Your task to perform on an android device: turn on translation in the chrome app Image 0: 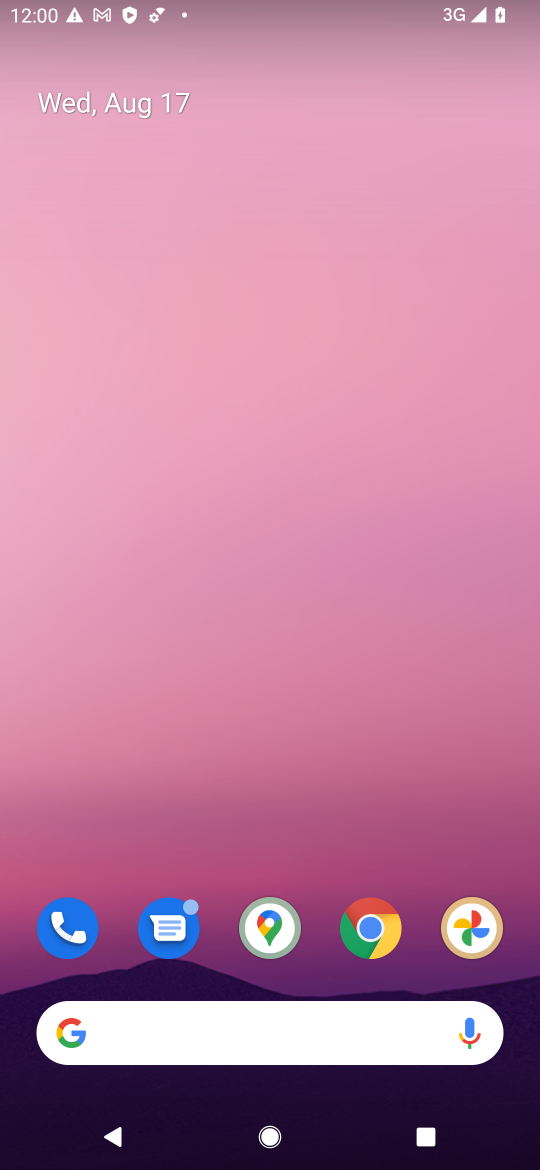
Step 0: click (348, 945)
Your task to perform on an android device: turn on translation in the chrome app Image 1: 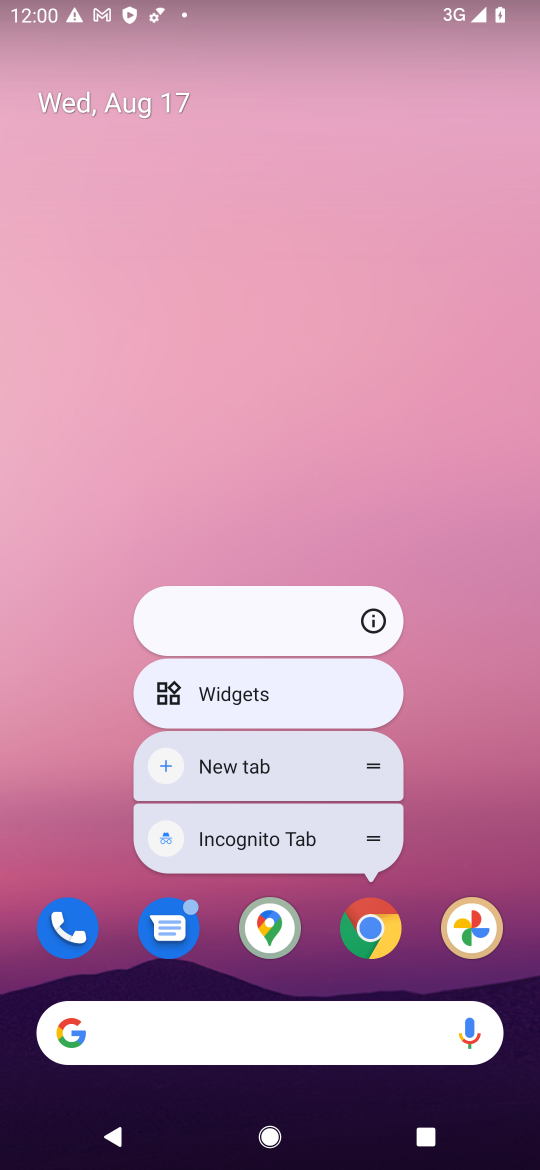
Step 1: click (348, 945)
Your task to perform on an android device: turn on translation in the chrome app Image 2: 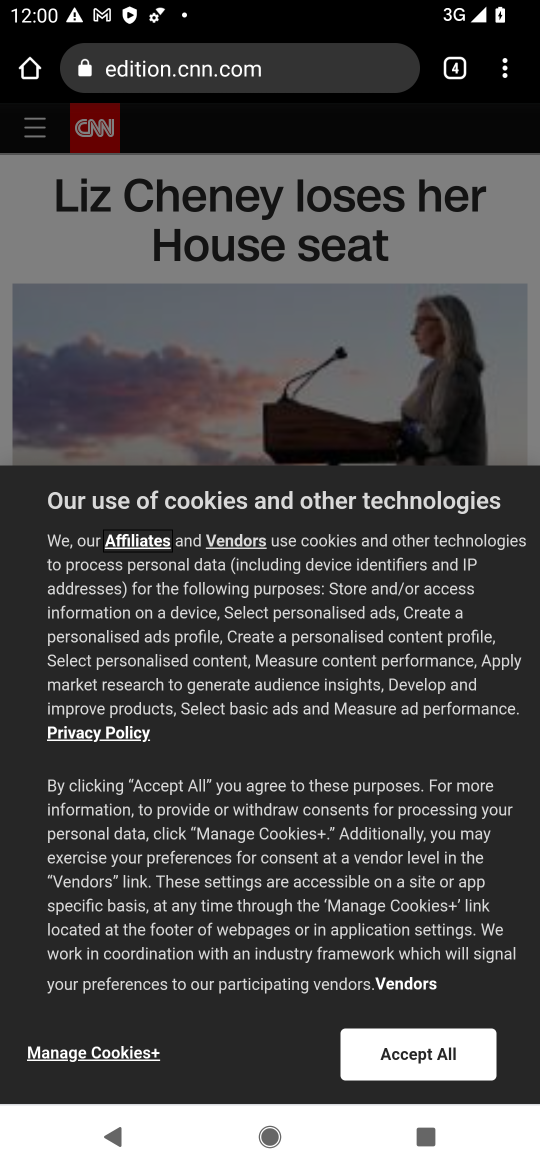
Step 2: click (499, 73)
Your task to perform on an android device: turn on translation in the chrome app Image 3: 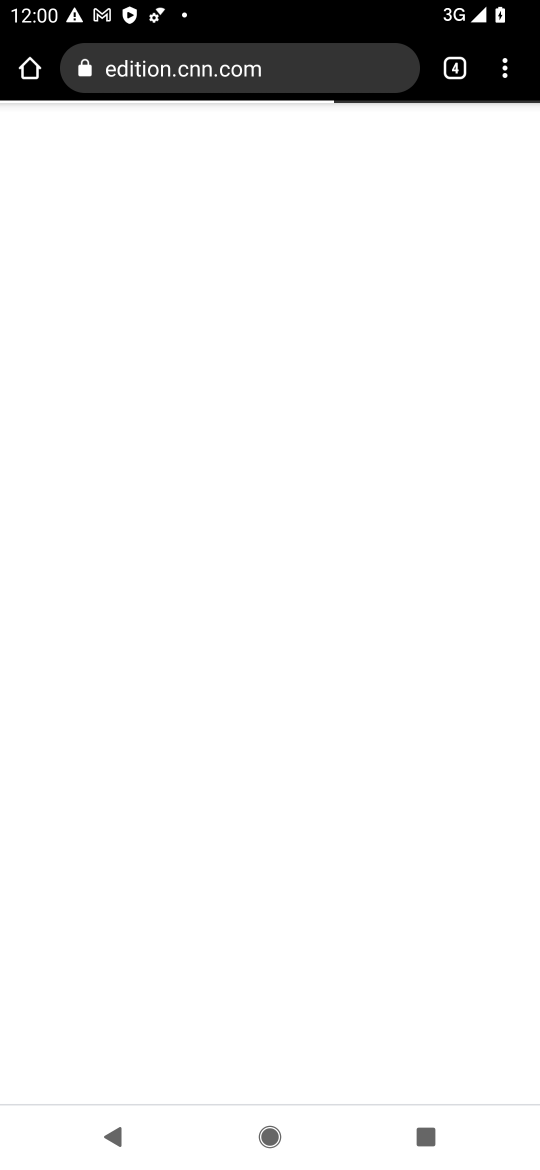
Step 3: click (499, 73)
Your task to perform on an android device: turn on translation in the chrome app Image 4: 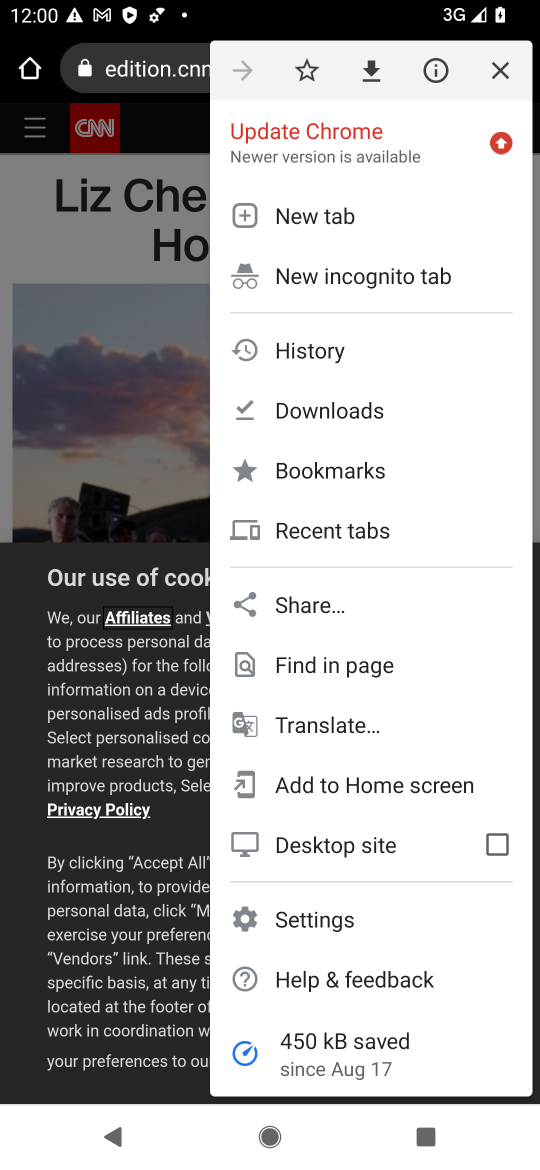
Step 4: click (353, 919)
Your task to perform on an android device: turn on translation in the chrome app Image 5: 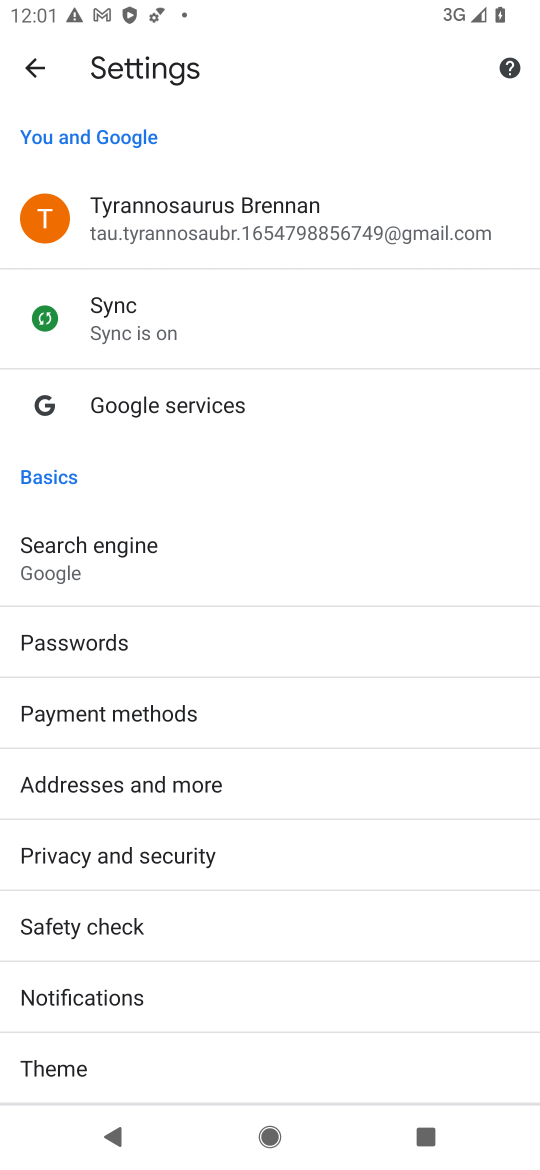
Step 5: drag from (151, 1018) to (168, 519)
Your task to perform on an android device: turn on translation in the chrome app Image 6: 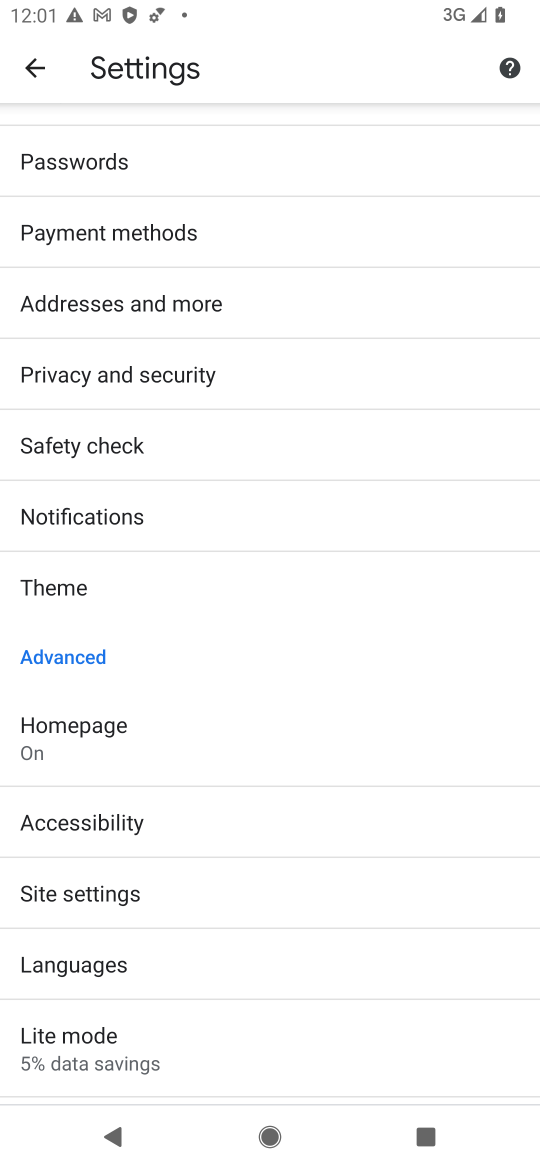
Step 6: click (125, 953)
Your task to perform on an android device: turn on translation in the chrome app Image 7: 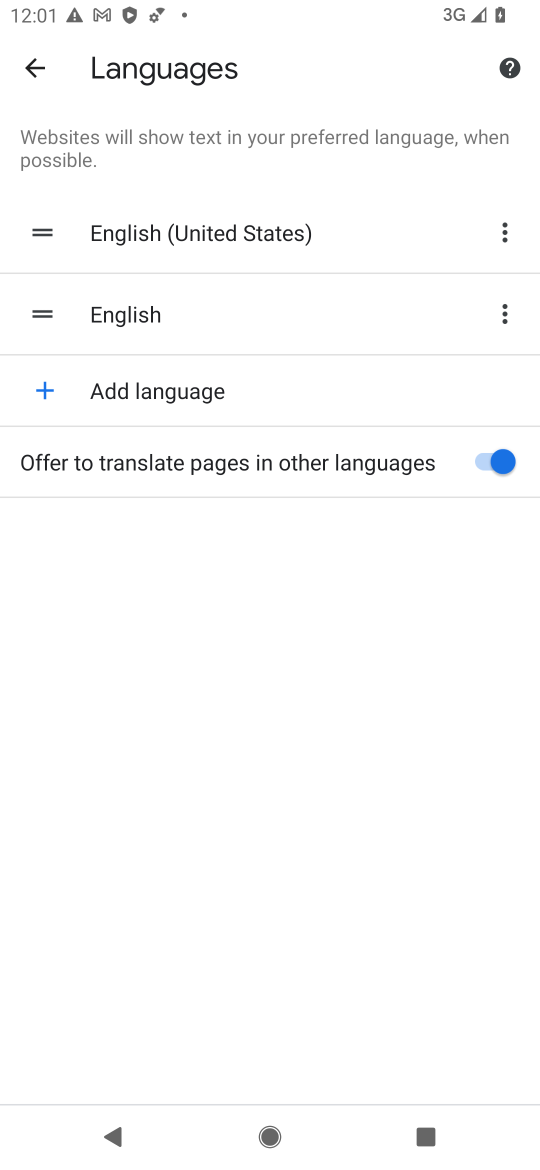
Step 7: task complete